Your task to perform on an android device: turn off smart reply in the gmail app Image 0: 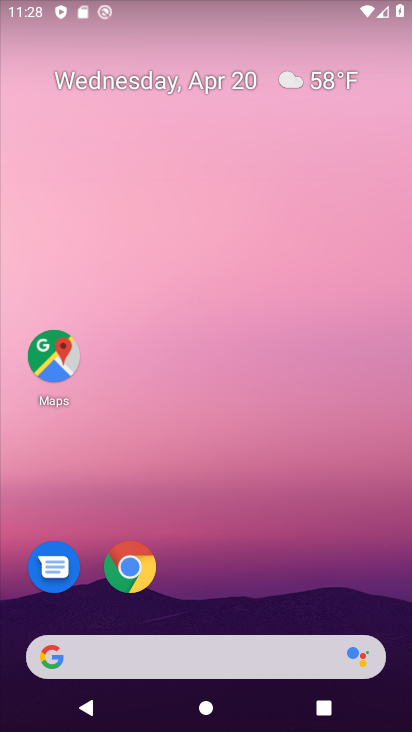
Step 0: drag from (348, 564) to (269, 131)
Your task to perform on an android device: turn off smart reply in the gmail app Image 1: 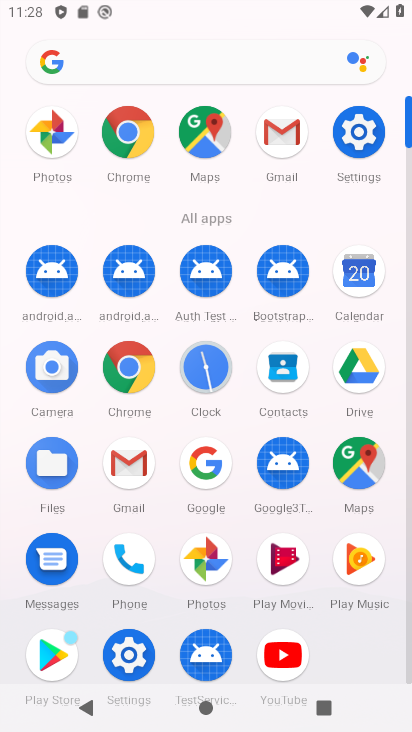
Step 1: click (292, 151)
Your task to perform on an android device: turn off smart reply in the gmail app Image 2: 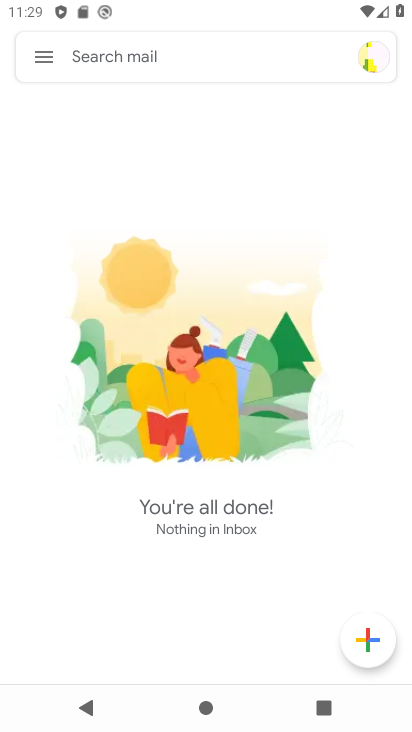
Step 2: click (36, 72)
Your task to perform on an android device: turn off smart reply in the gmail app Image 3: 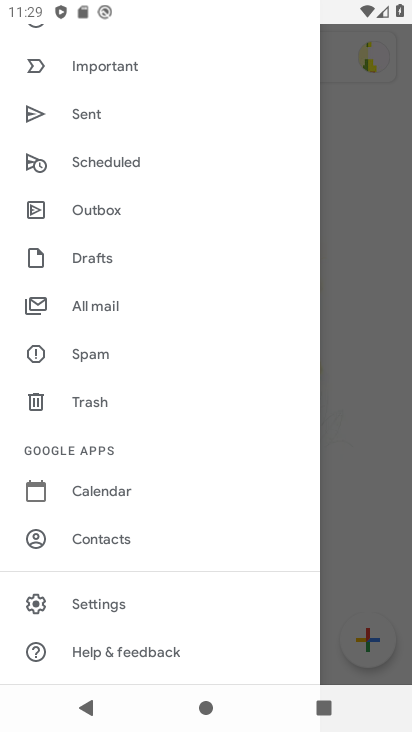
Step 3: click (199, 607)
Your task to perform on an android device: turn off smart reply in the gmail app Image 4: 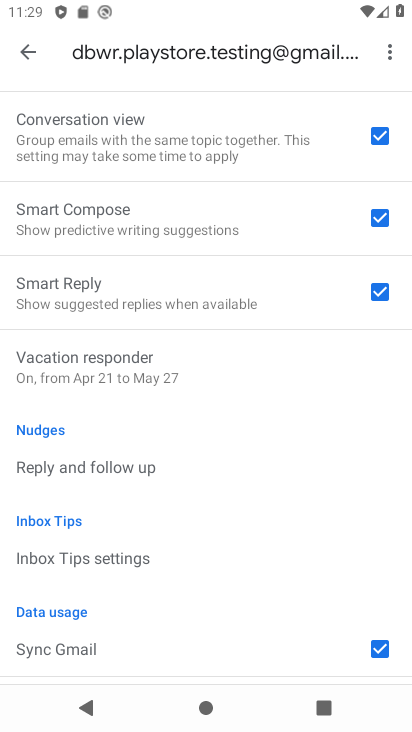
Step 4: drag from (199, 607) to (191, 704)
Your task to perform on an android device: turn off smart reply in the gmail app Image 5: 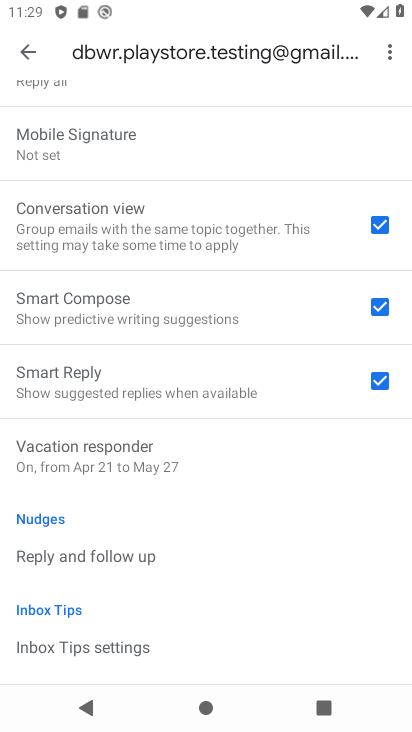
Step 5: click (387, 373)
Your task to perform on an android device: turn off smart reply in the gmail app Image 6: 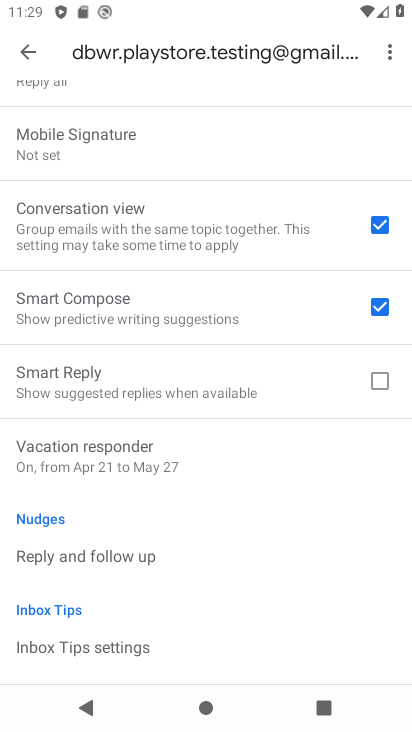
Step 6: task complete